Your task to perform on an android device: turn on javascript in the chrome app Image 0: 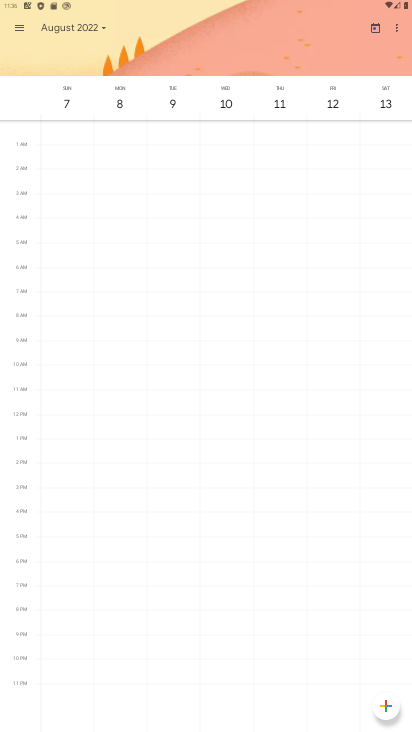
Step 0: press home button
Your task to perform on an android device: turn on javascript in the chrome app Image 1: 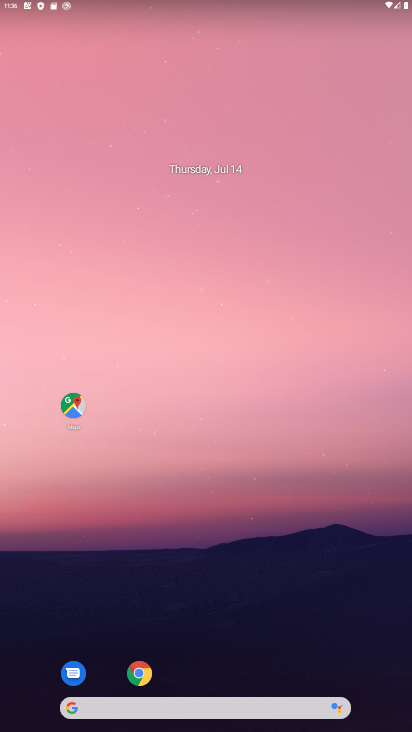
Step 1: click (141, 674)
Your task to perform on an android device: turn on javascript in the chrome app Image 2: 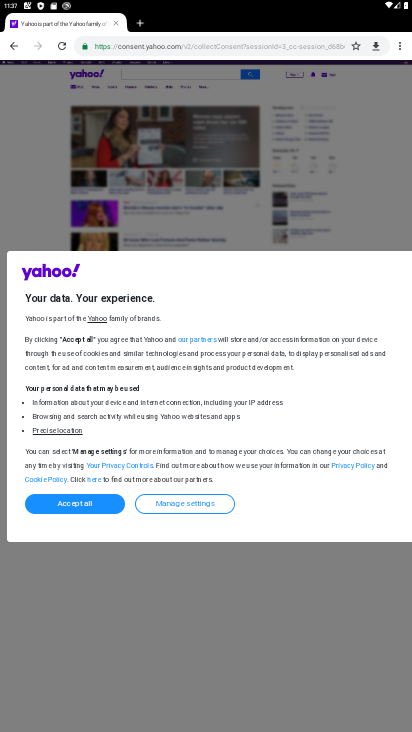
Step 2: click (403, 43)
Your task to perform on an android device: turn on javascript in the chrome app Image 3: 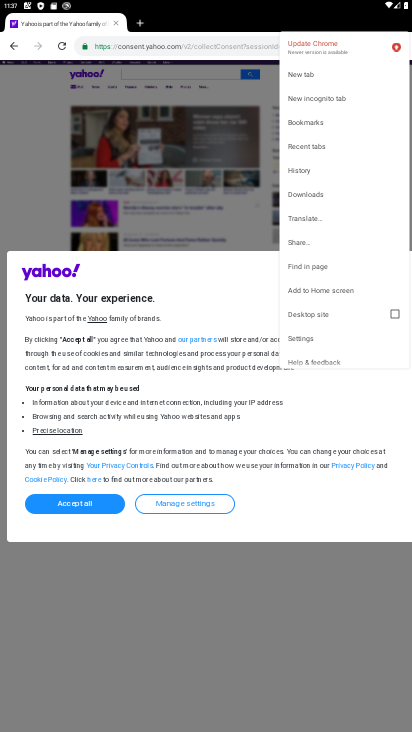
Step 3: click (305, 338)
Your task to perform on an android device: turn on javascript in the chrome app Image 4: 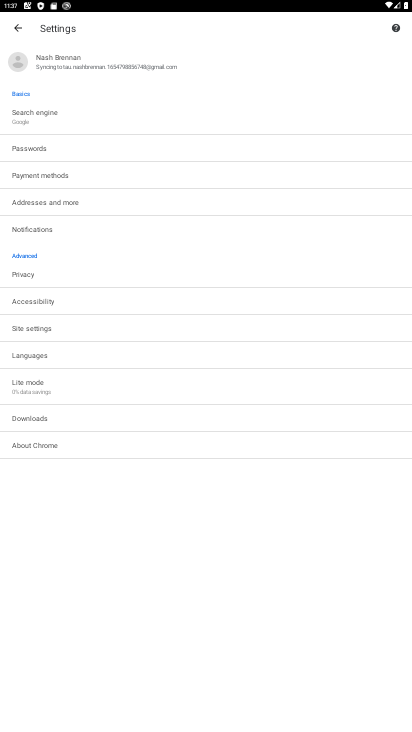
Step 4: click (64, 324)
Your task to perform on an android device: turn on javascript in the chrome app Image 5: 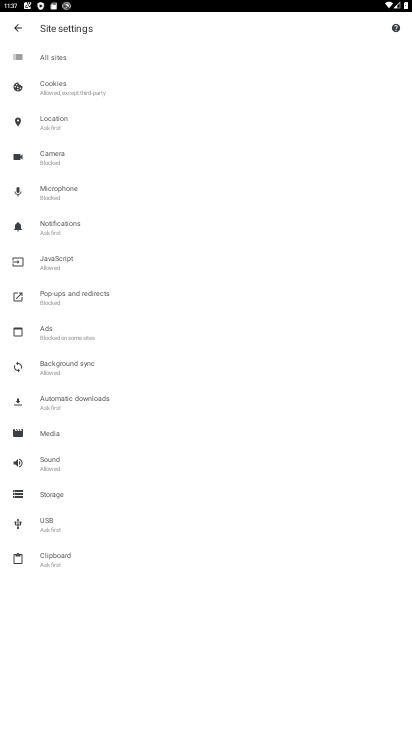
Step 5: click (130, 257)
Your task to perform on an android device: turn on javascript in the chrome app Image 6: 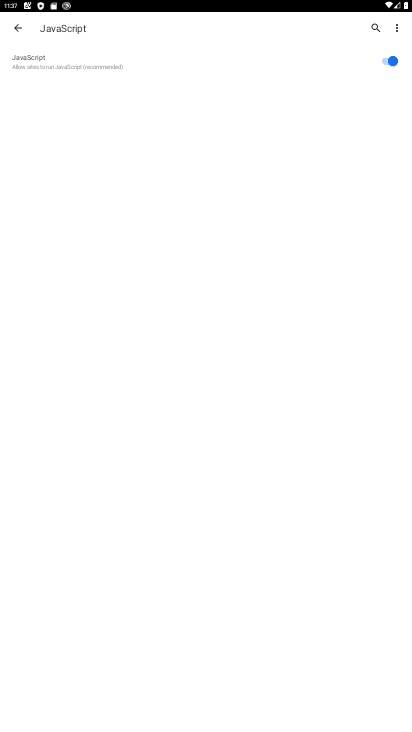
Step 6: task complete